Your task to perform on an android device: empty trash in google photos Image 0: 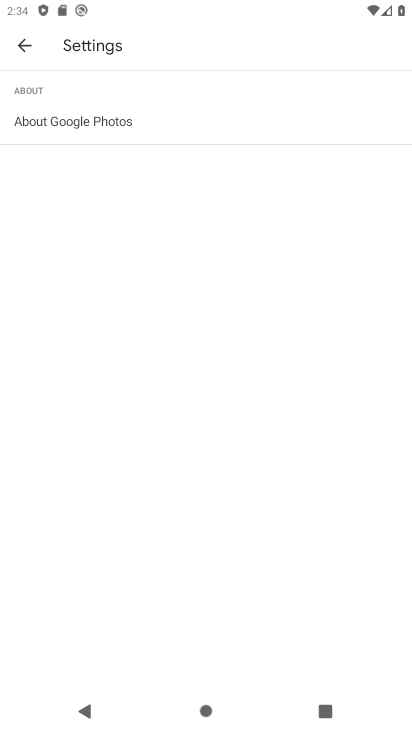
Step 0: press home button
Your task to perform on an android device: empty trash in google photos Image 1: 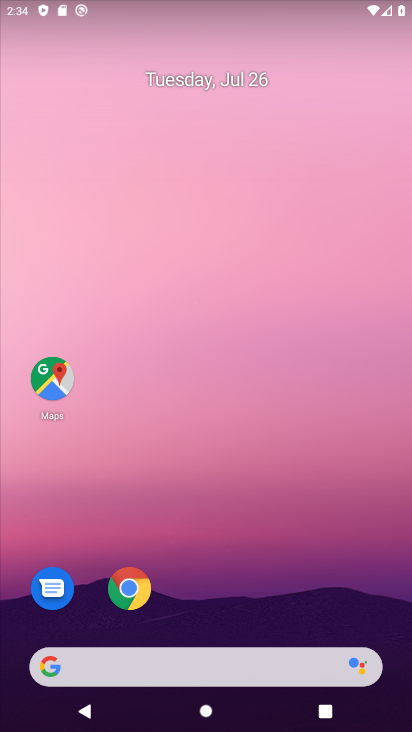
Step 1: drag from (234, 621) to (209, 338)
Your task to perform on an android device: empty trash in google photos Image 2: 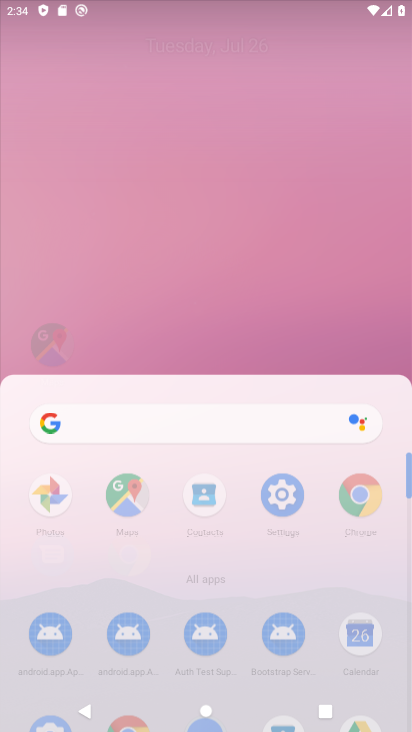
Step 2: click (210, 331)
Your task to perform on an android device: empty trash in google photos Image 3: 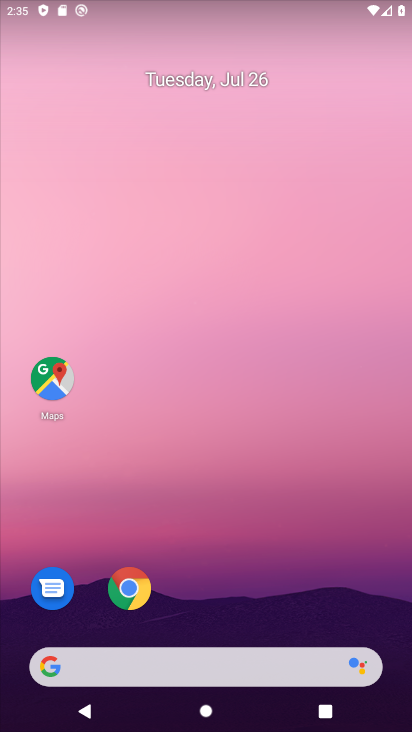
Step 3: drag from (207, 625) to (173, 0)
Your task to perform on an android device: empty trash in google photos Image 4: 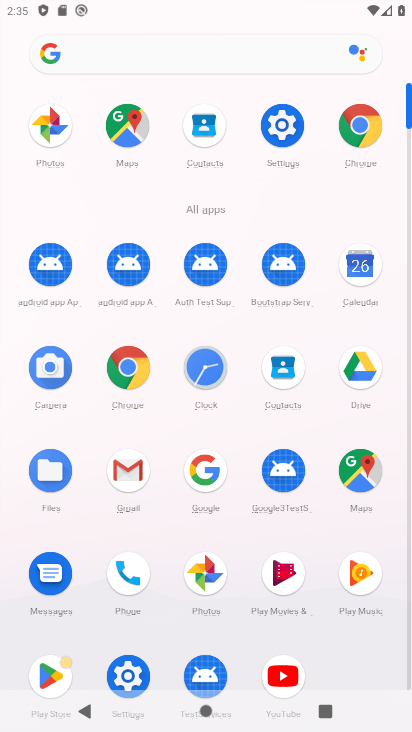
Step 4: click (44, 156)
Your task to perform on an android device: empty trash in google photos Image 5: 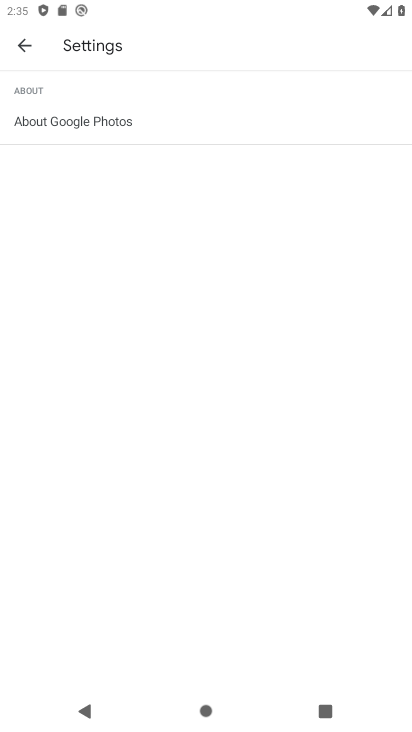
Step 5: click (35, 44)
Your task to perform on an android device: empty trash in google photos Image 6: 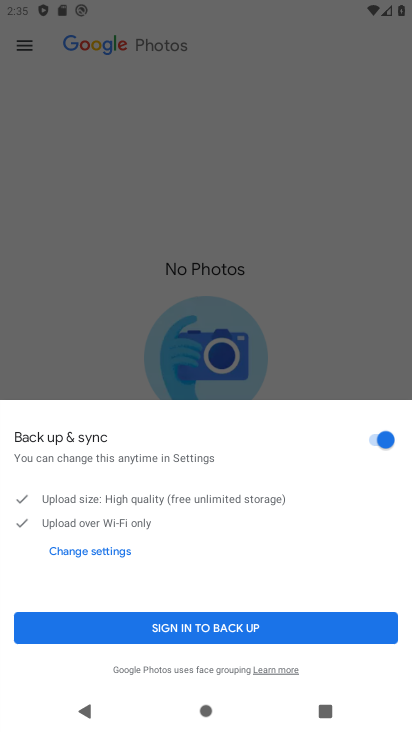
Step 6: click (204, 625)
Your task to perform on an android device: empty trash in google photos Image 7: 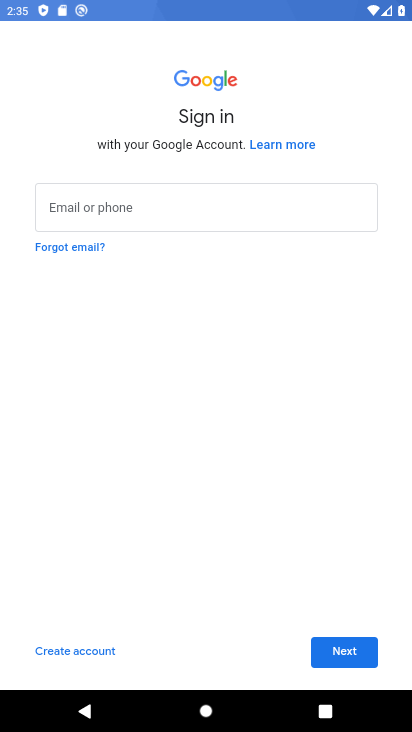
Step 7: task complete